Your task to perform on an android device: What's the weather going to be this weekend? Image 0: 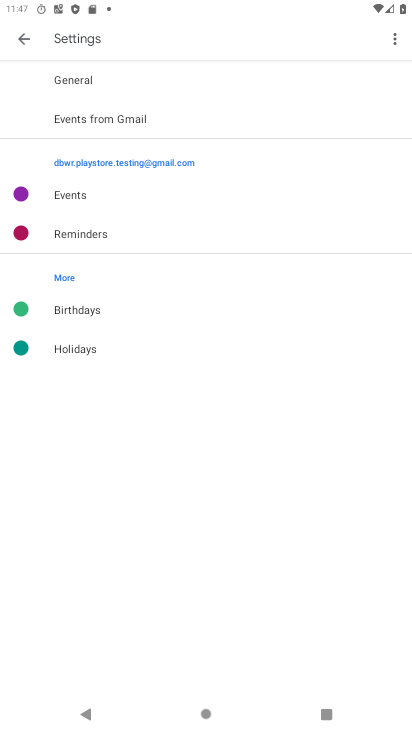
Step 0: press home button
Your task to perform on an android device: What's the weather going to be this weekend? Image 1: 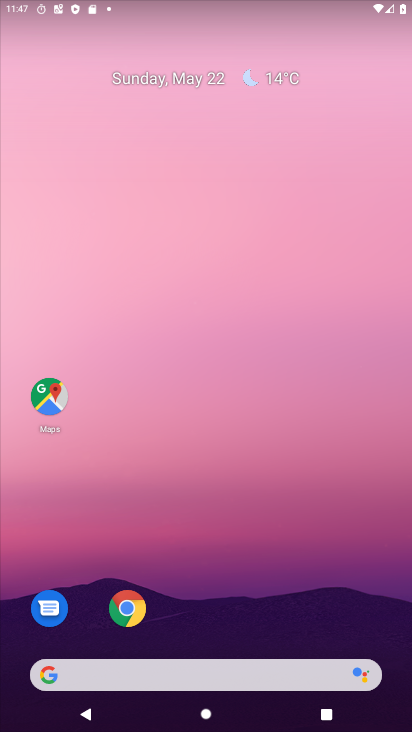
Step 1: click (248, 77)
Your task to perform on an android device: What's the weather going to be this weekend? Image 2: 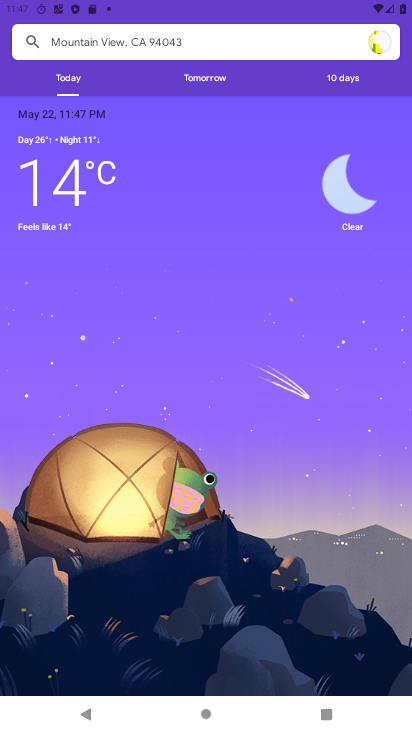
Step 2: click (348, 79)
Your task to perform on an android device: What's the weather going to be this weekend? Image 3: 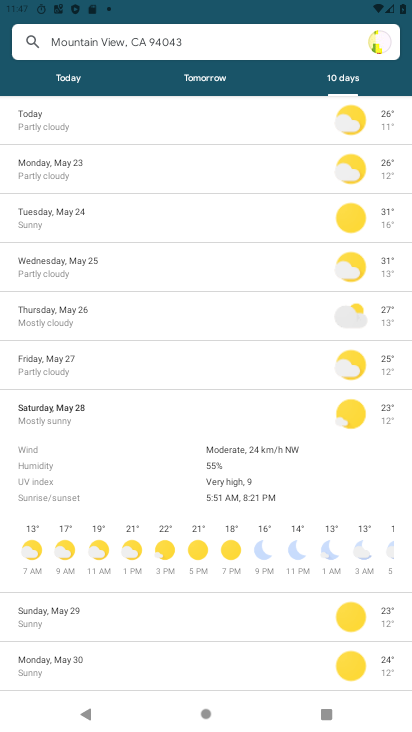
Step 3: task complete